Your task to perform on an android device: turn on bluetooth scan Image 0: 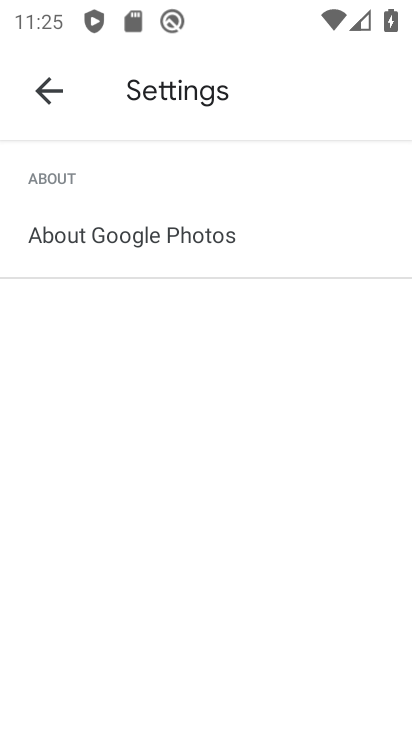
Step 0: click (44, 89)
Your task to perform on an android device: turn on bluetooth scan Image 1: 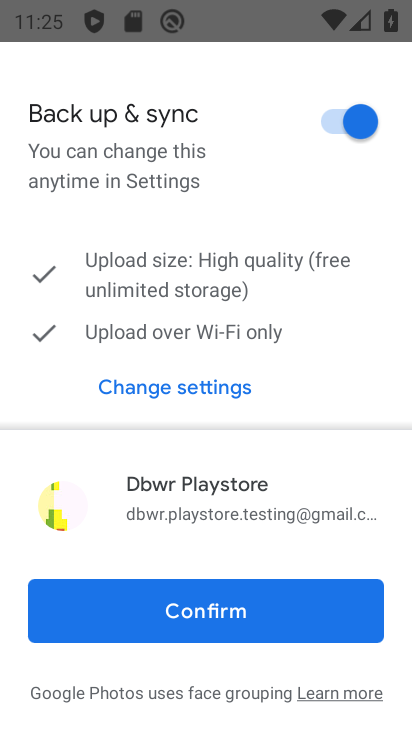
Step 1: press home button
Your task to perform on an android device: turn on bluetooth scan Image 2: 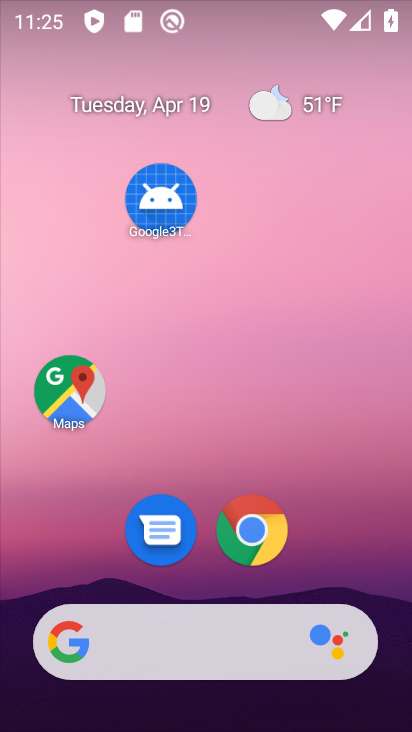
Step 2: drag from (325, 547) to (311, 48)
Your task to perform on an android device: turn on bluetooth scan Image 3: 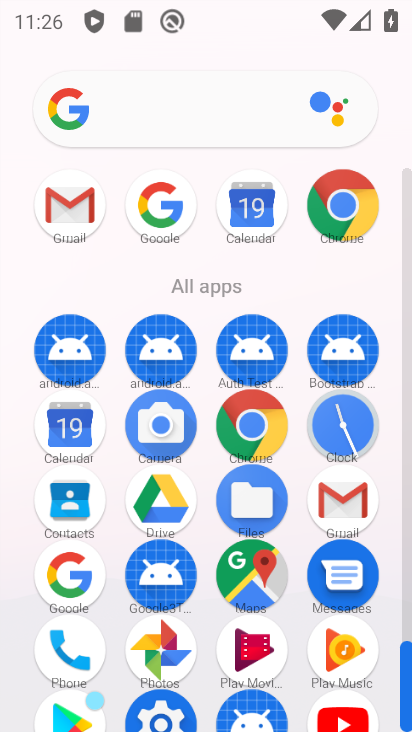
Step 3: click (159, 709)
Your task to perform on an android device: turn on bluetooth scan Image 4: 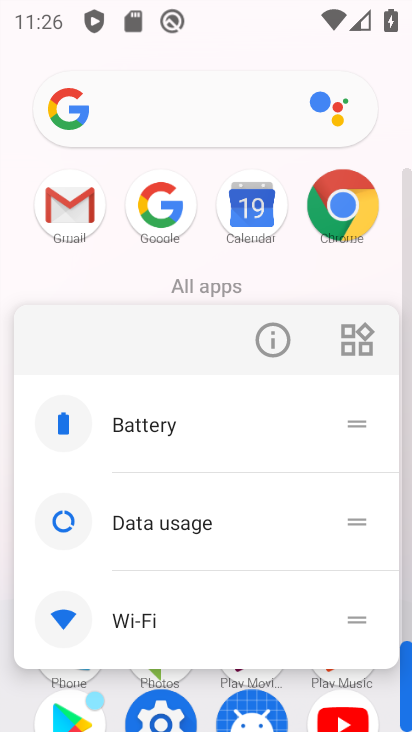
Step 4: click (159, 709)
Your task to perform on an android device: turn on bluetooth scan Image 5: 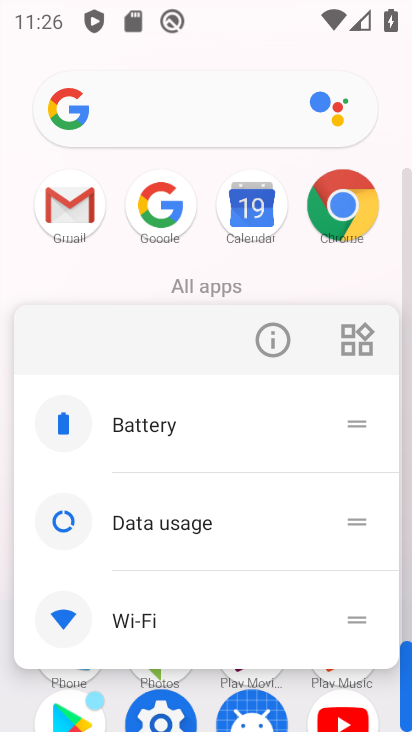
Step 5: click (158, 714)
Your task to perform on an android device: turn on bluetooth scan Image 6: 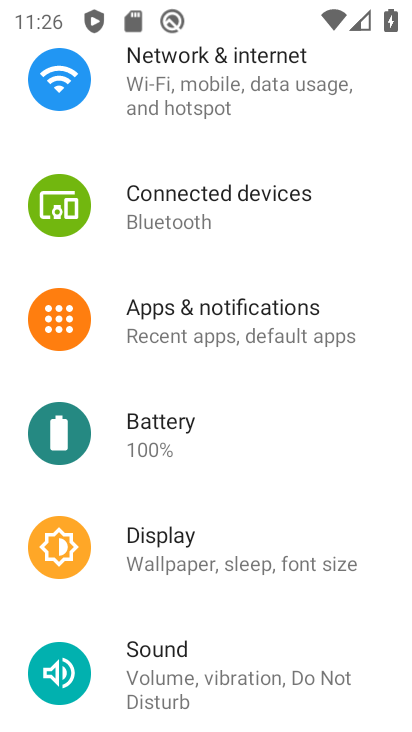
Step 6: drag from (284, 590) to (295, 107)
Your task to perform on an android device: turn on bluetooth scan Image 7: 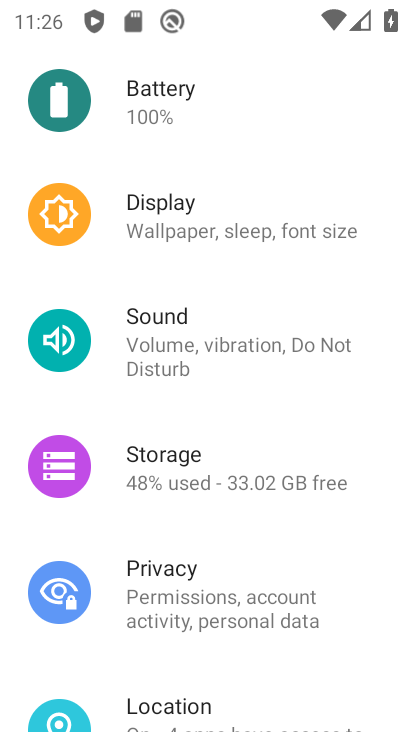
Step 7: click (161, 692)
Your task to perform on an android device: turn on bluetooth scan Image 8: 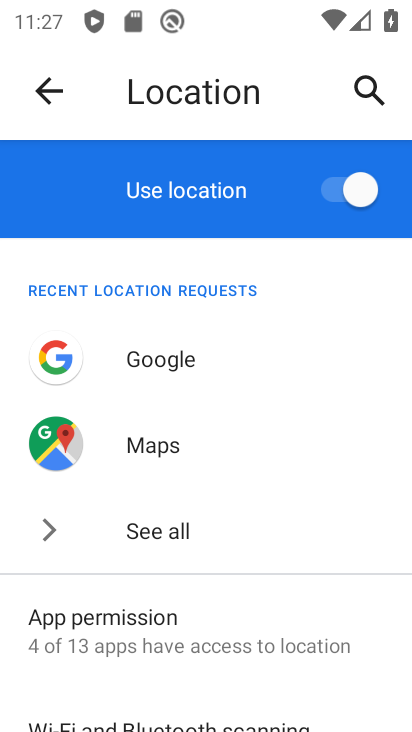
Step 8: click (186, 720)
Your task to perform on an android device: turn on bluetooth scan Image 9: 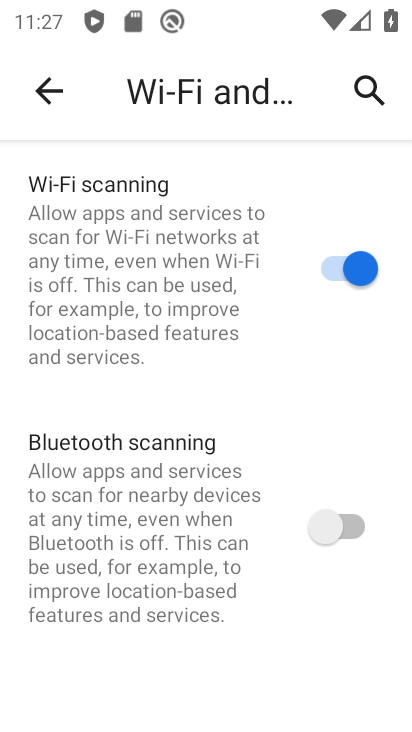
Step 9: click (316, 503)
Your task to perform on an android device: turn on bluetooth scan Image 10: 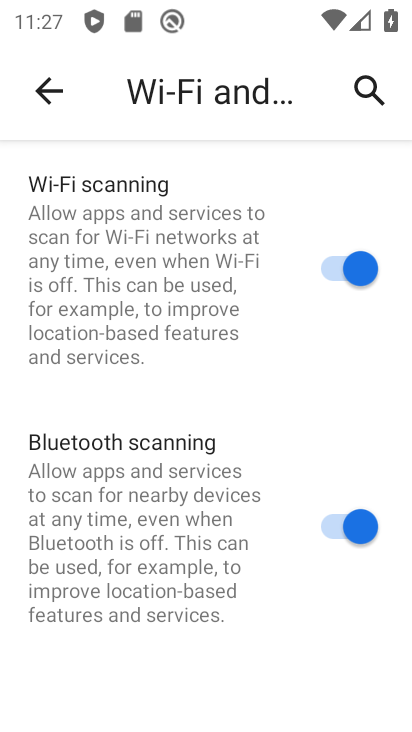
Step 10: task complete